Your task to perform on an android device: toggle wifi Image 0: 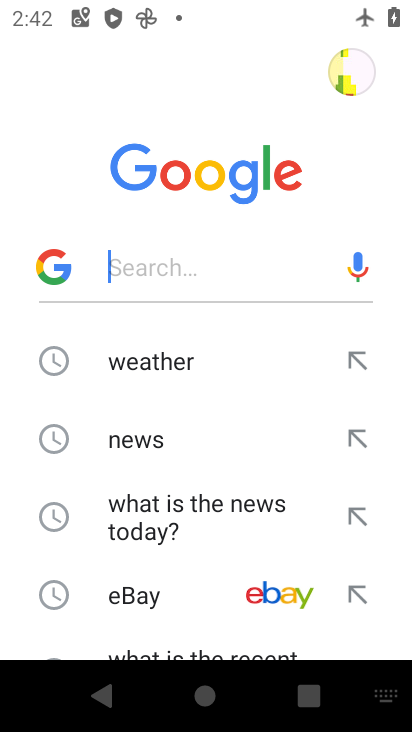
Step 0: press home button
Your task to perform on an android device: toggle wifi Image 1: 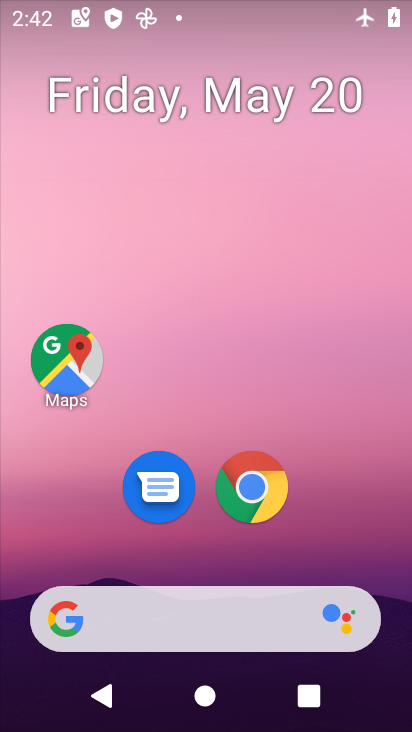
Step 1: drag from (326, 506) to (303, 60)
Your task to perform on an android device: toggle wifi Image 2: 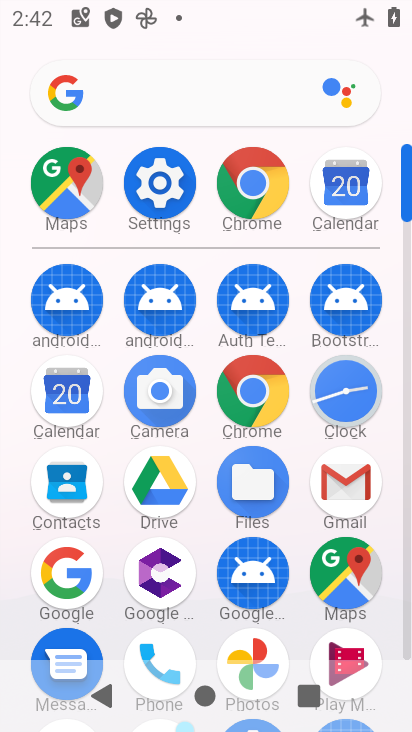
Step 2: click (161, 207)
Your task to perform on an android device: toggle wifi Image 3: 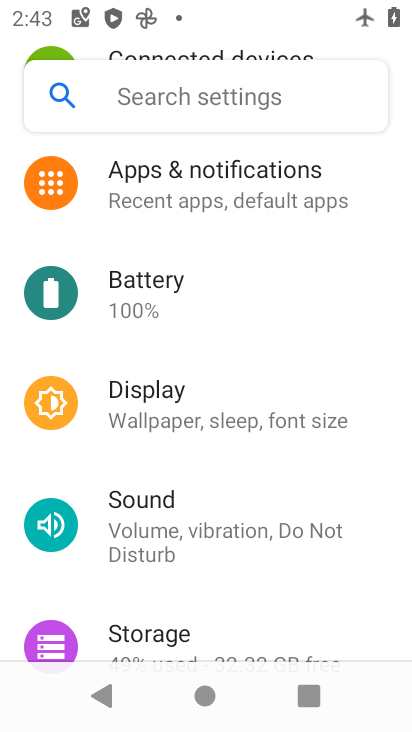
Step 3: drag from (290, 297) to (300, 724)
Your task to perform on an android device: toggle wifi Image 4: 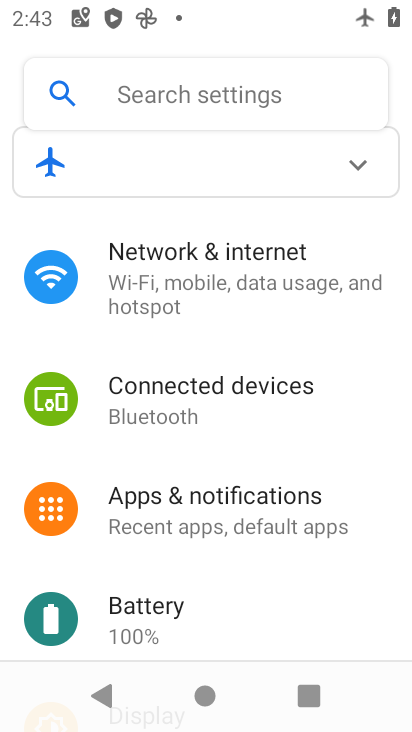
Step 4: drag from (255, 250) to (217, 598)
Your task to perform on an android device: toggle wifi Image 5: 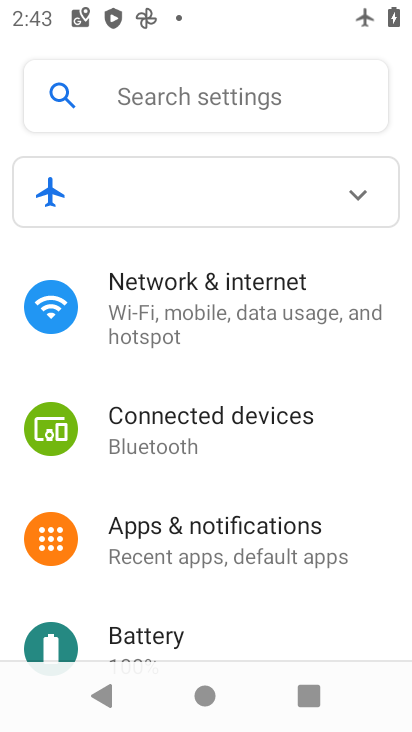
Step 5: click (185, 328)
Your task to perform on an android device: toggle wifi Image 6: 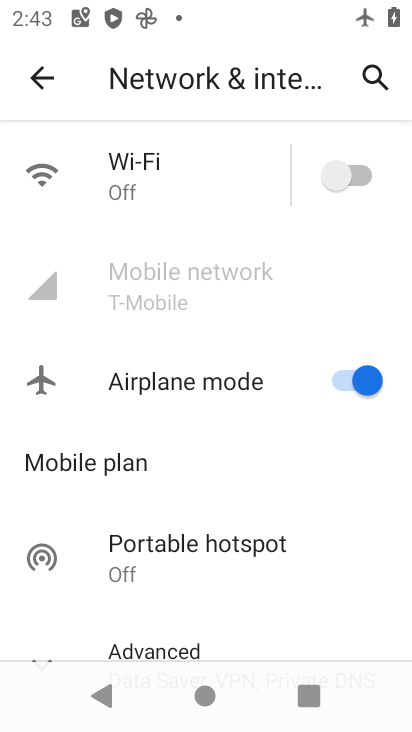
Step 6: click (337, 178)
Your task to perform on an android device: toggle wifi Image 7: 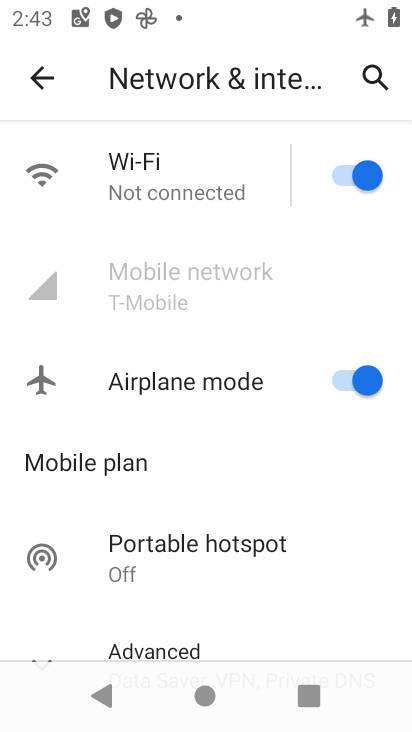
Step 7: task complete